Your task to perform on an android device: check battery use Image 0: 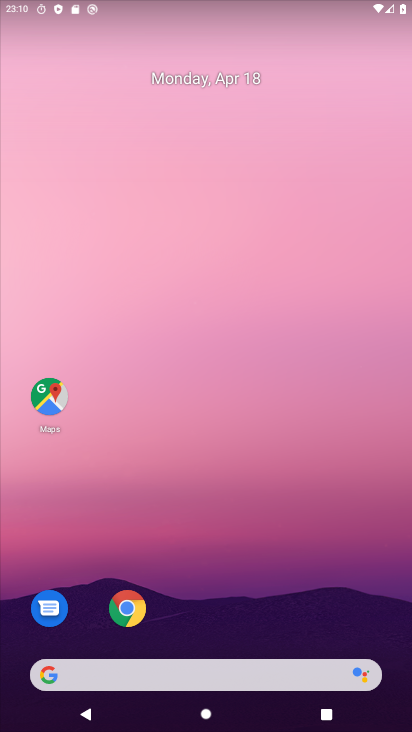
Step 0: drag from (221, 599) to (230, 152)
Your task to perform on an android device: check battery use Image 1: 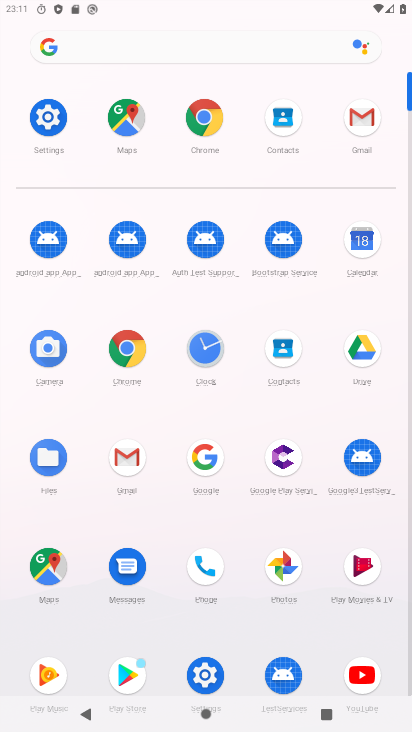
Step 1: click (47, 117)
Your task to perform on an android device: check battery use Image 2: 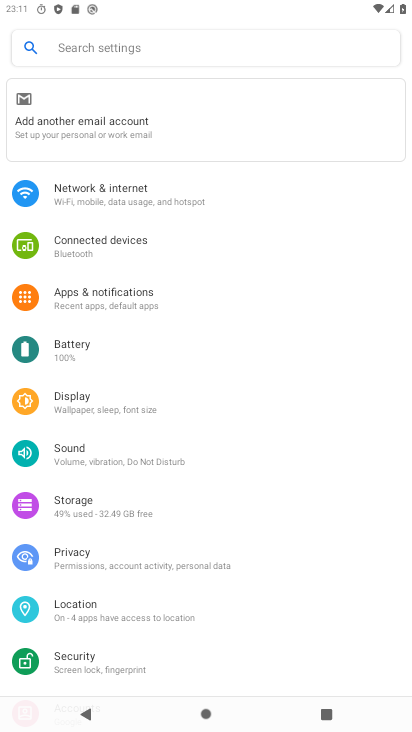
Step 2: click (83, 345)
Your task to perform on an android device: check battery use Image 3: 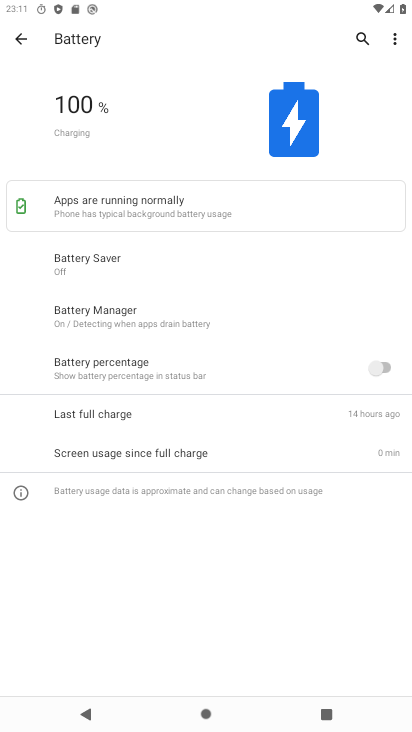
Step 3: click (391, 37)
Your task to perform on an android device: check battery use Image 4: 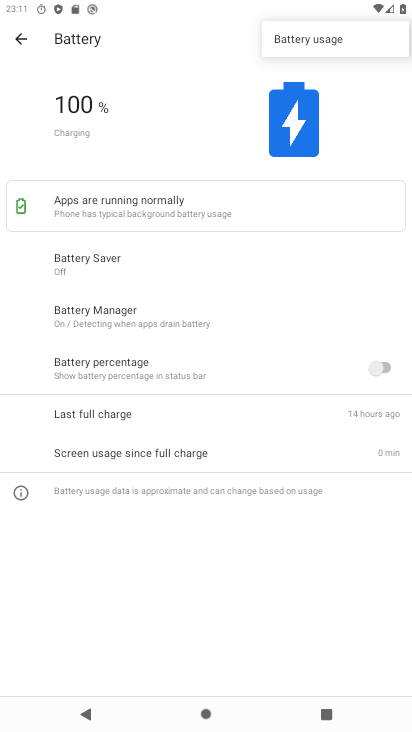
Step 4: click (312, 35)
Your task to perform on an android device: check battery use Image 5: 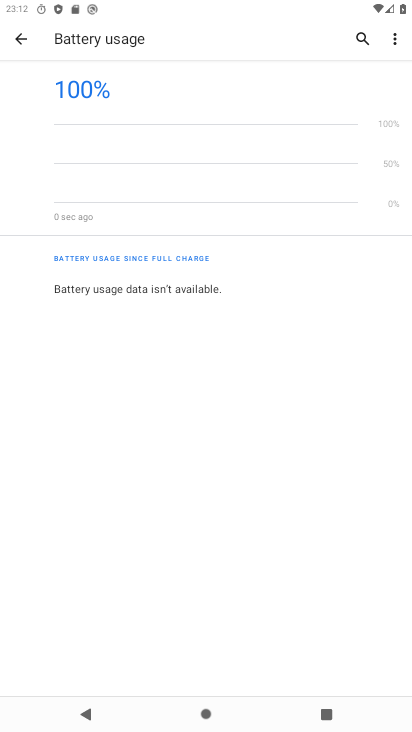
Step 5: task complete